Your task to perform on an android device: Check the news Image 0: 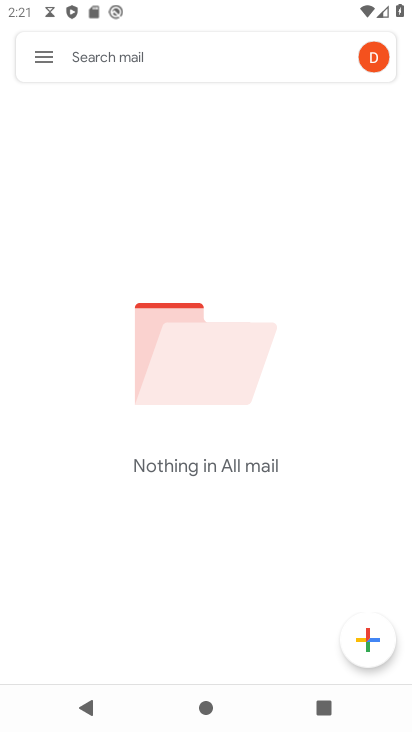
Step 0: press home button
Your task to perform on an android device: Check the news Image 1: 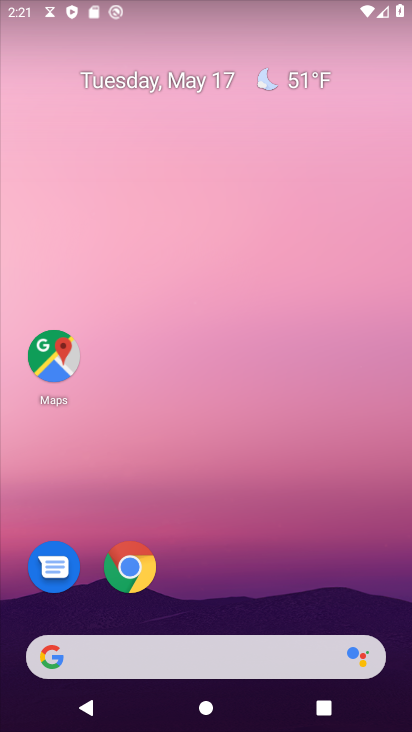
Step 1: task complete